Your task to perform on an android device: turn on the 12-hour format for clock Image 0: 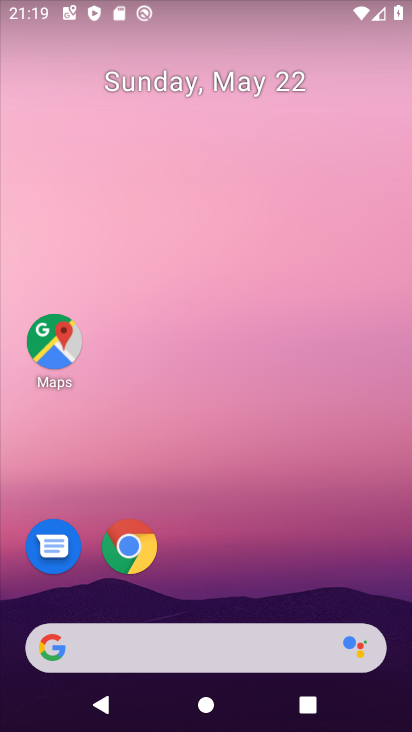
Step 0: drag from (188, 568) to (239, 253)
Your task to perform on an android device: turn on the 12-hour format for clock Image 1: 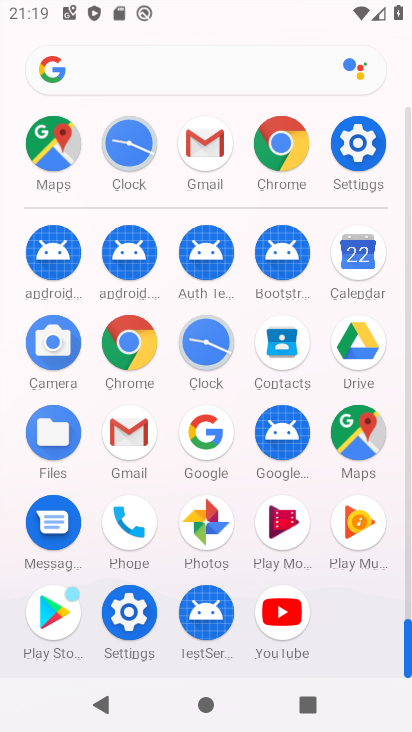
Step 1: click (216, 351)
Your task to perform on an android device: turn on the 12-hour format for clock Image 2: 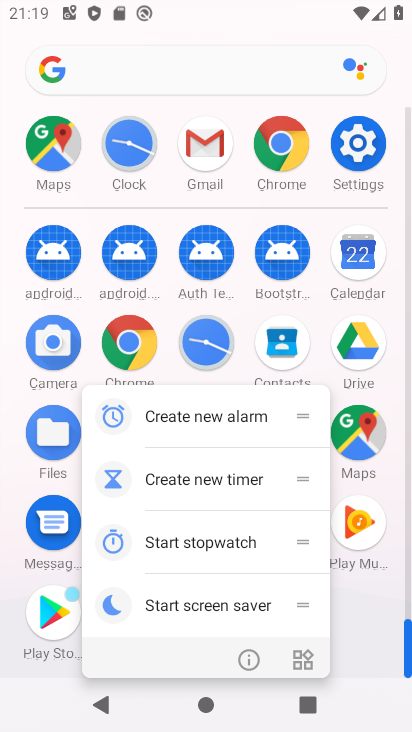
Step 2: click (248, 669)
Your task to perform on an android device: turn on the 12-hour format for clock Image 3: 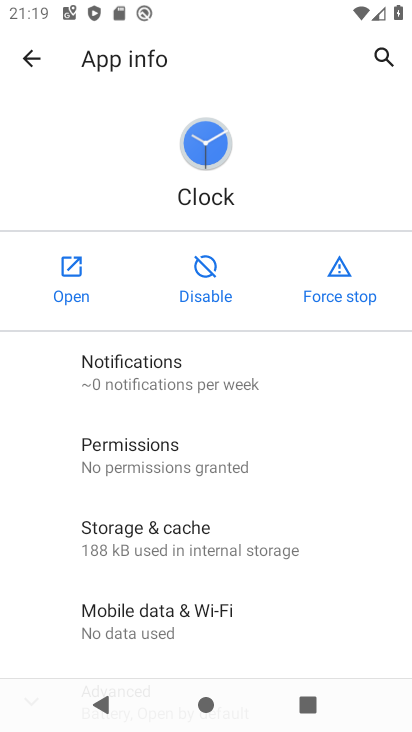
Step 3: click (65, 293)
Your task to perform on an android device: turn on the 12-hour format for clock Image 4: 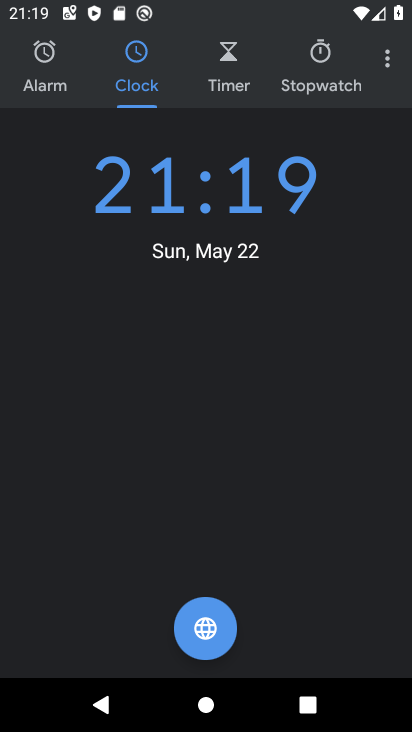
Step 4: click (374, 74)
Your task to perform on an android device: turn on the 12-hour format for clock Image 5: 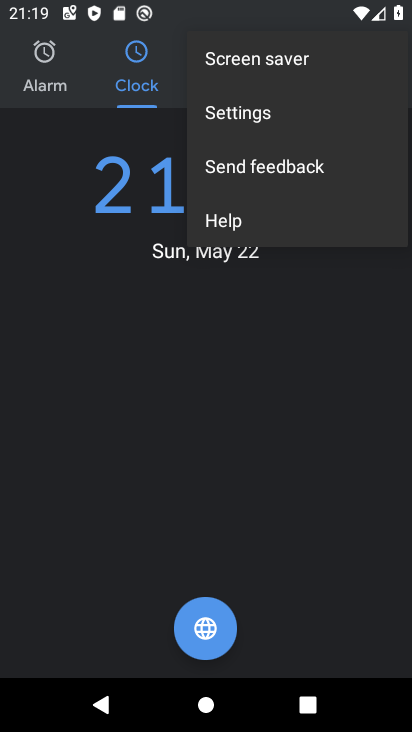
Step 5: click (260, 129)
Your task to perform on an android device: turn on the 12-hour format for clock Image 6: 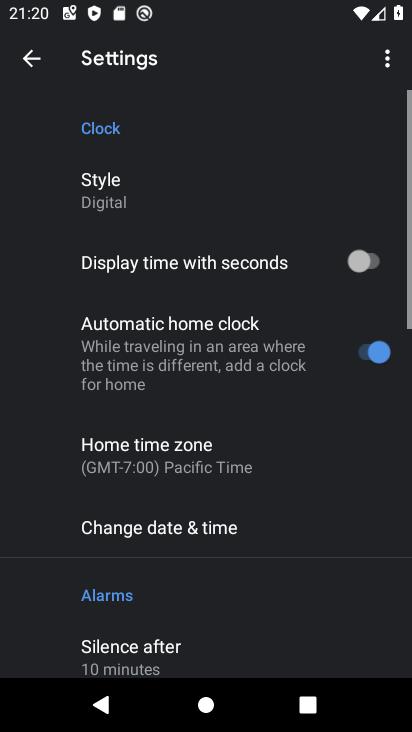
Step 6: drag from (228, 527) to (287, 143)
Your task to perform on an android device: turn on the 12-hour format for clock Image 7: 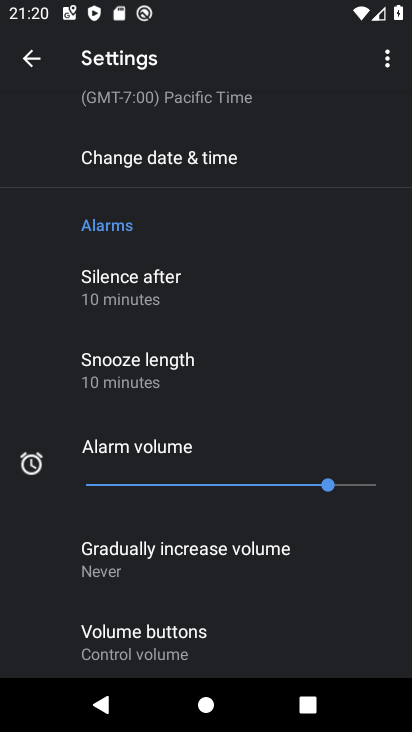
Step 7: click (262, 162)
Your task to perform on an android device: turn on the 12-hour format for clock Image 8: 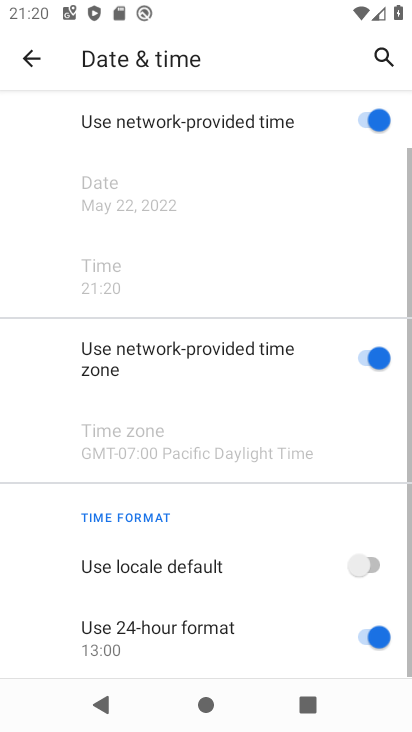
Step 8: drag from (217, 583) to (267, 161)
Your task to perform on an android device: turn on the 12-hour format for clock Image 9: 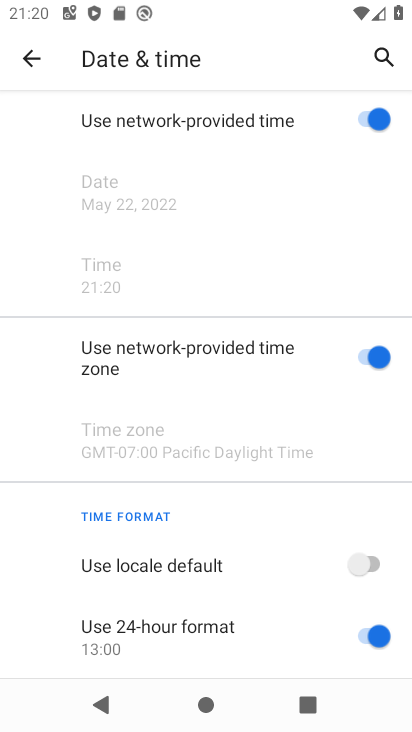
Step 9: click (374, 636)
Your task to perform on an android device: turn on the 12-hour format for clock Image 10: 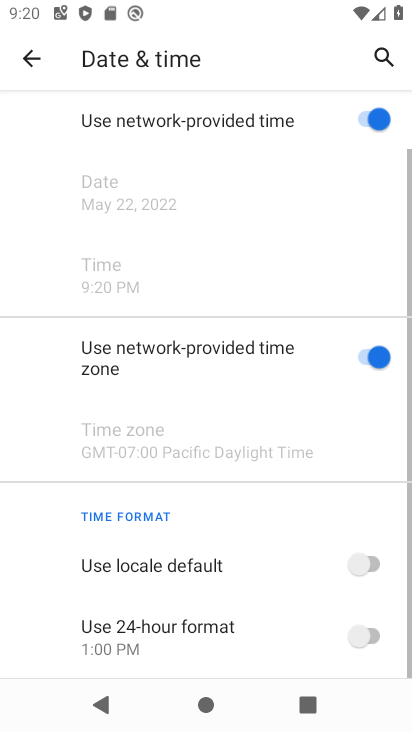
Step 10: task complete